Your task to perform on an android device: Open Google Chrome and click the shortcut for Amazon.com Image 0: 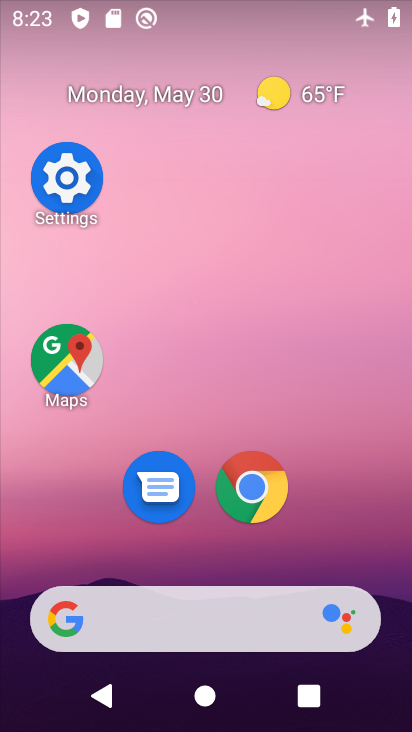
Step 0: click (261, 504)
Your task to perform on an android device: Open Google Chrome and click the shortcut for Amazon.com Image 1: 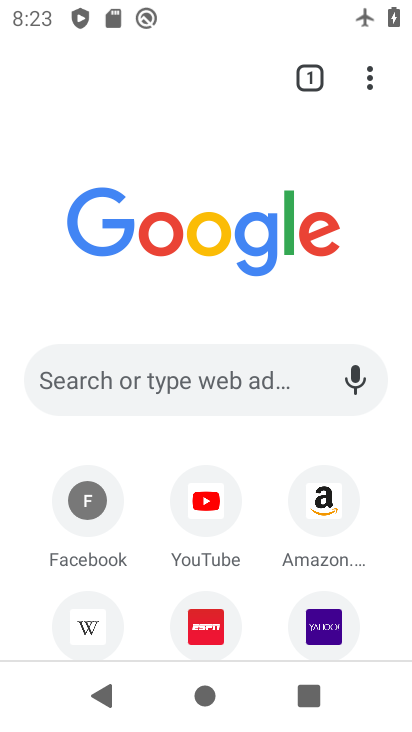
Step 1: click (376, 73)
Your task to perform on an android device: Open Google Chrome and click the shortcut for Amazon.com Image 2: 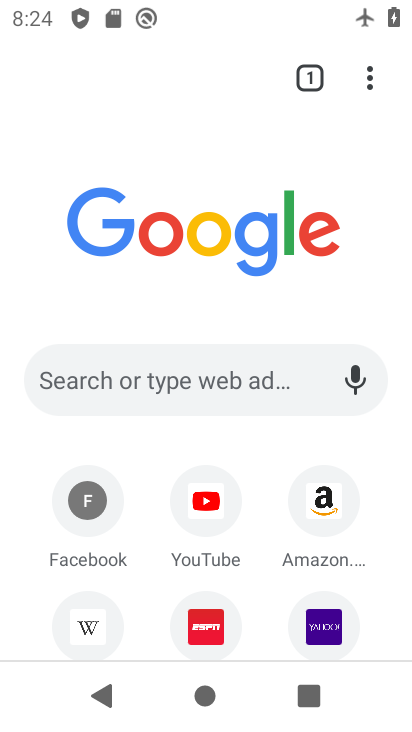
Step 2: click (377, 85)
Your task to perform on an android device: Open Google Chrome and click the shortcut for Amazon.com Image 3: 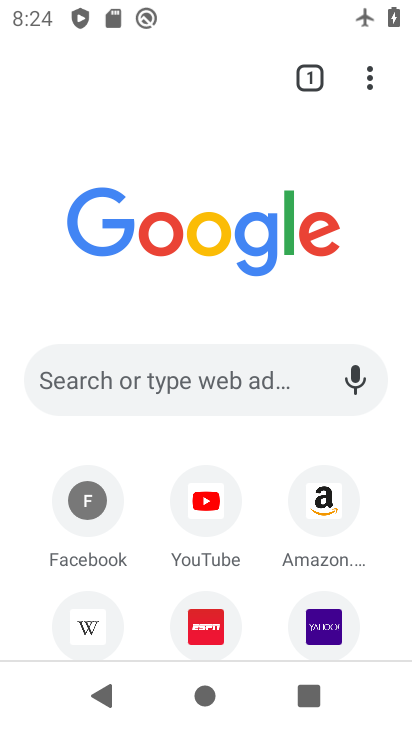
Step 3: click (318, 499)
Your task to perform on an android device: Open Google Chrome and click the shortcut for Amazon.com Image 4: 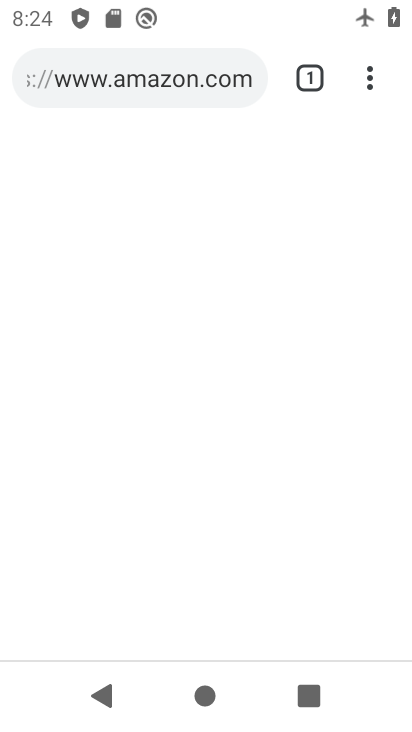
Step 4: click (306, 492)
Your task to perform on an android device: Open Google Chrome and click the shortcut for Amazon.com Image 5: 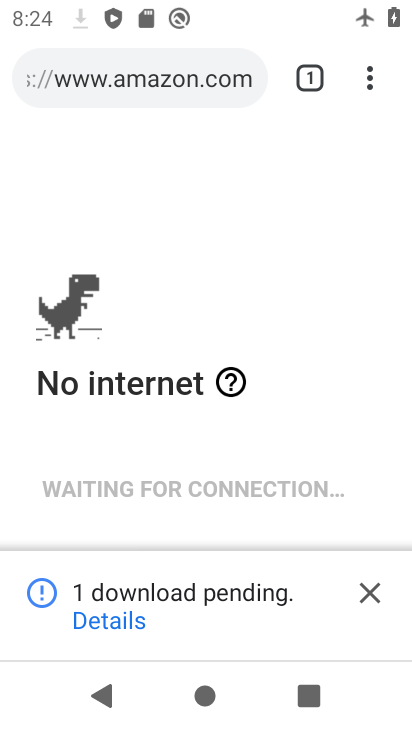
Step 5: task complete